Your task to perform on an android device: remove spam from my inbox in the gmail app Image 0: 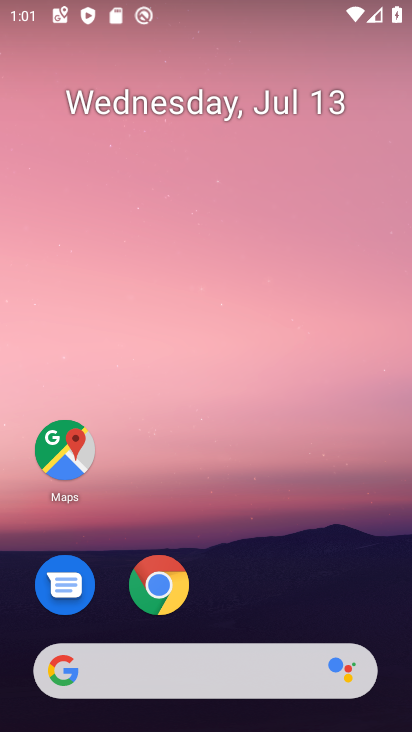
Step 0: drag from (186, 688) to (334, 264)
Your task to perform on an android device: remove spam from my inbox in the gmail app Image 1: 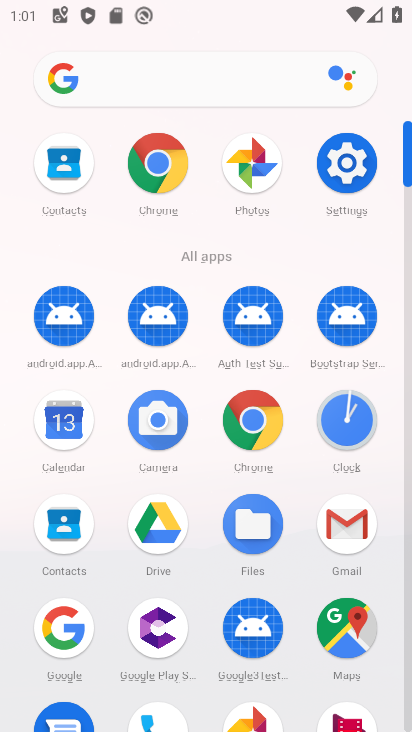
Step 1: click (338, 517)
Your task to perform on an android device: remove spam from my inbox in the gmail app Image 2: 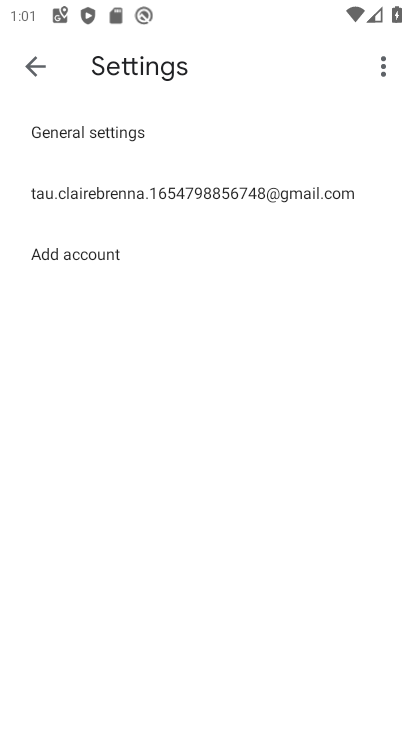
Step 2: click (34, 63)
Your task to perform on an android device: remove spam from my inbox in the gmail app Image 3: 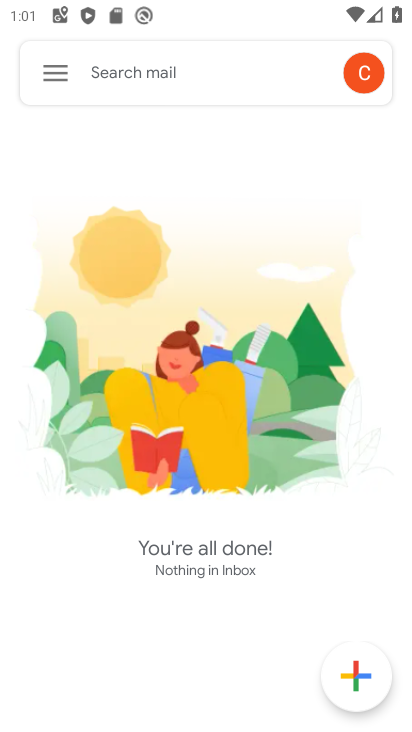
Step 3: click (60, 72)
Your task to perform on an android device: remove spam from my inbox in the gmail app Image 4: 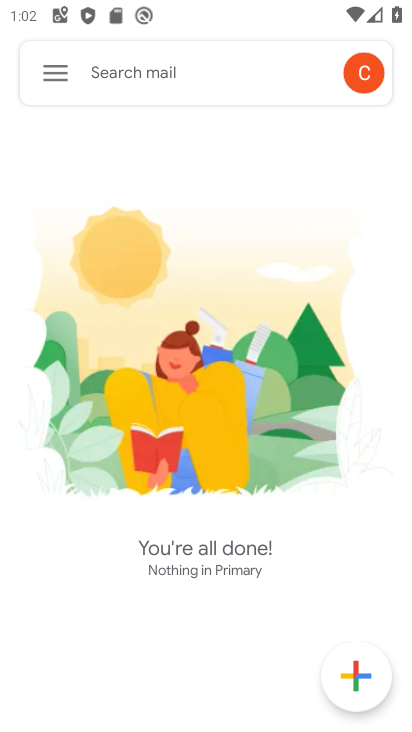
Step 4: click (55, 66)
Your task to perform on an android device: remove spam from my inbox in the gmail app Image 5: 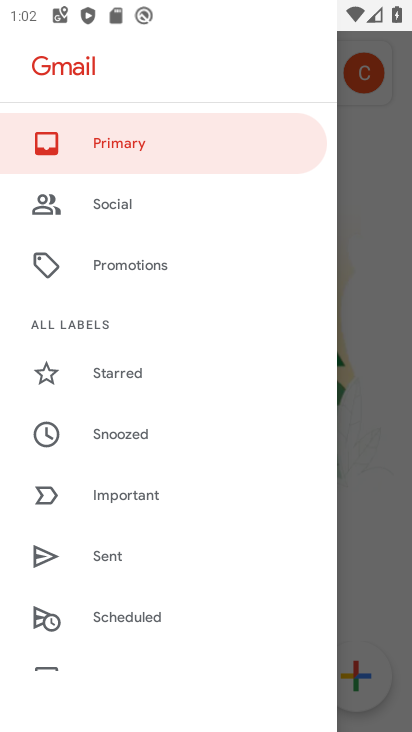
Step 5: drag from (136, 611) to (288, 160)
Your task to perform on an android device: remove spam from my inbox in the gmail app Image 6: 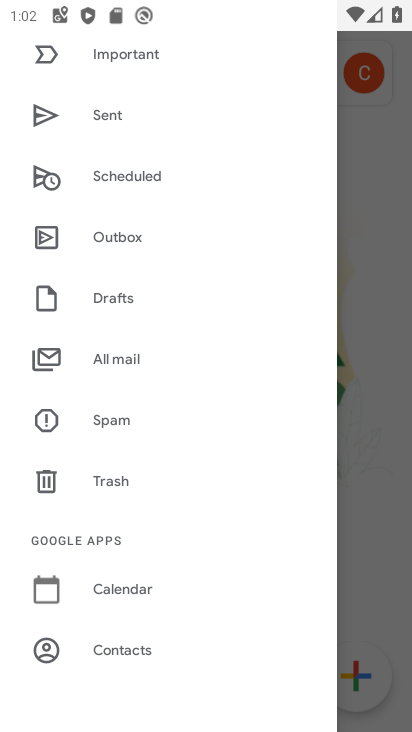
Step 6: click (121, 419)
Your task to perform on an android device: remove spam from my inbox in the gmail app Image 7: 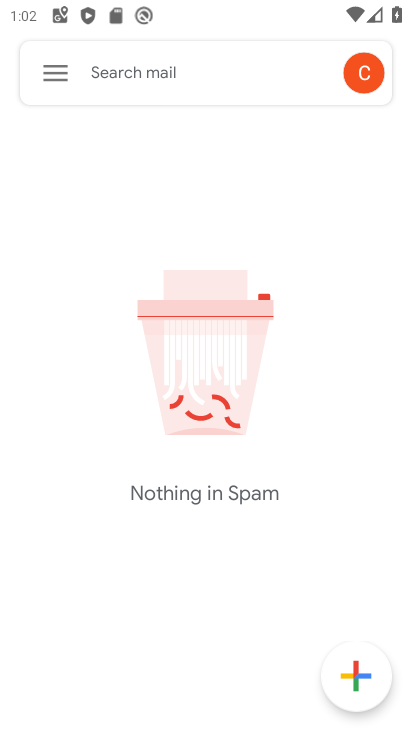
Step 7: task complete